Your task to perform on an android device: Open CNN.com Image 0: 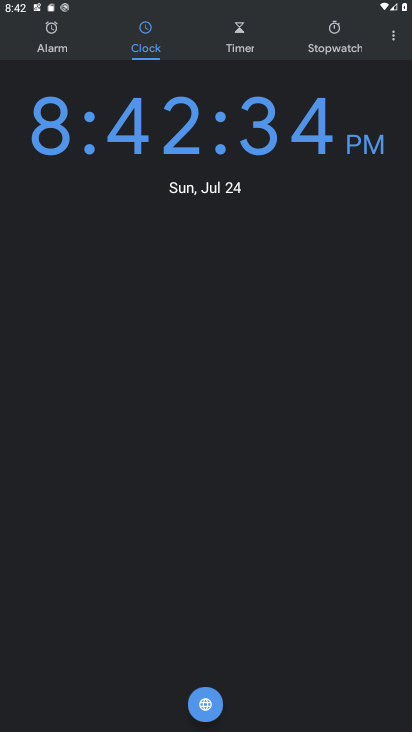
Step 0: press home button
Your task to perform on an android device: Open CNN.com Image 1: 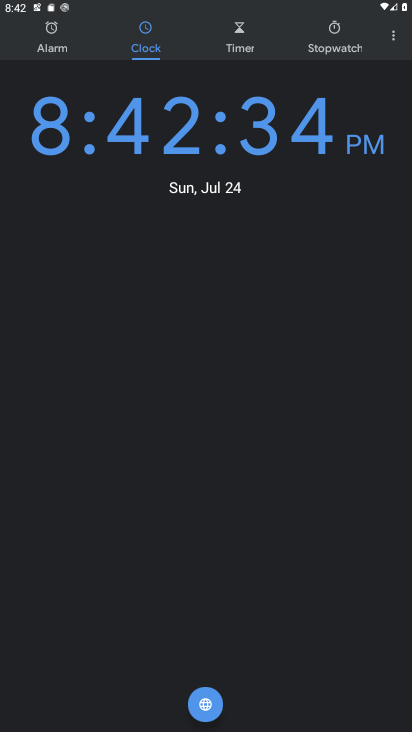
Step 1: press home button
Your task to perform on an android device: Open CNN.com Image 2: 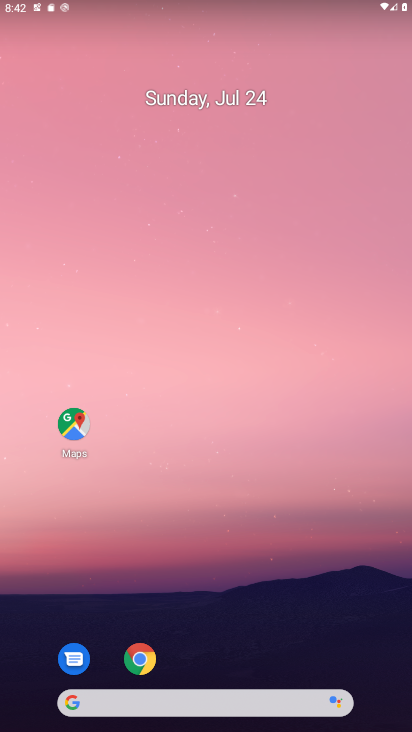
Step 2: click (142, 659)
Your task to perform on an android device: Open CNN.com Image 3: 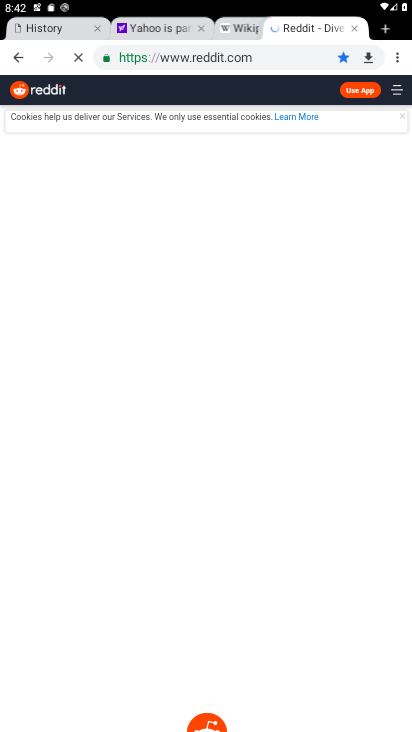
Step 3: click (398, 61)
Your task to perform on an android device: Open CNN.com Image 4: 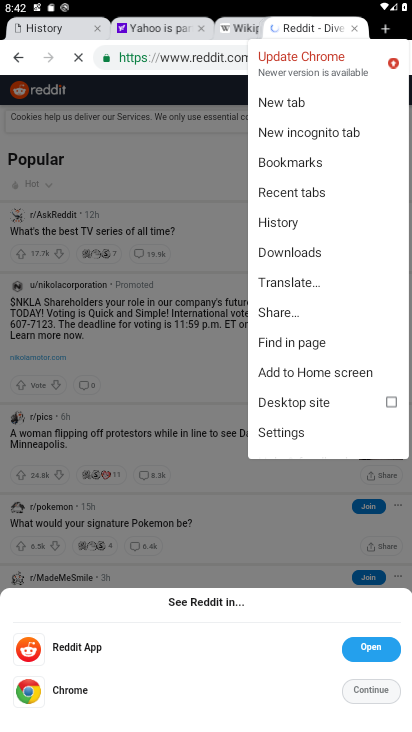
Step 4: click (292, 100)
Your task to perform on an android device: Open CNN.com Image 5: 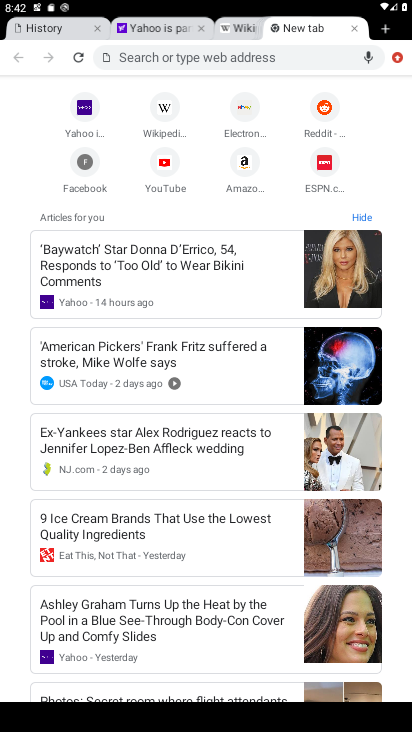
Step 5: click (199, 49)
Your task to perform on an android device: Open CNN.com Image 6: 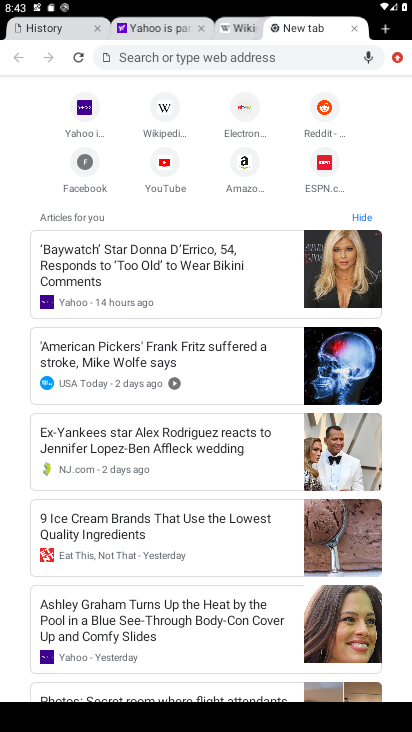
Step 6: type "CNN.com"
Your task to perform on an android device: Open CNN.com Image 7: 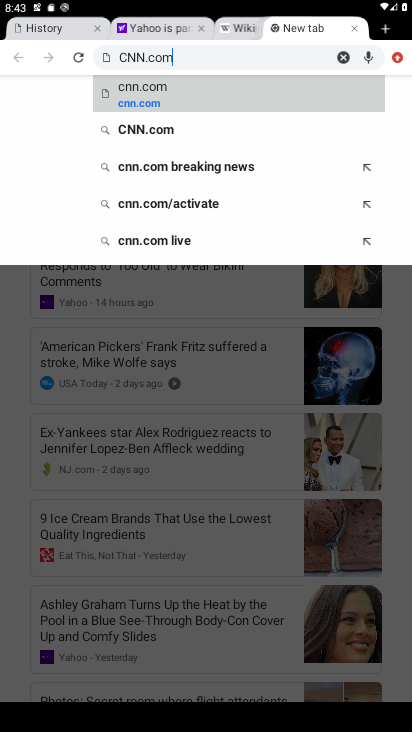
Step 7: click (132, 89)
Your task to perform on an android device: Open CNN.com Image 8: 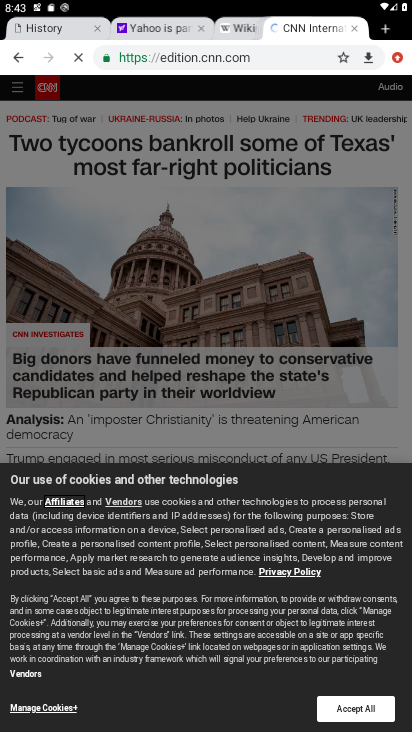
Step 8: task complete